Your task to perform on an android device: install app "Roku - Official Remote Control" Image 0: 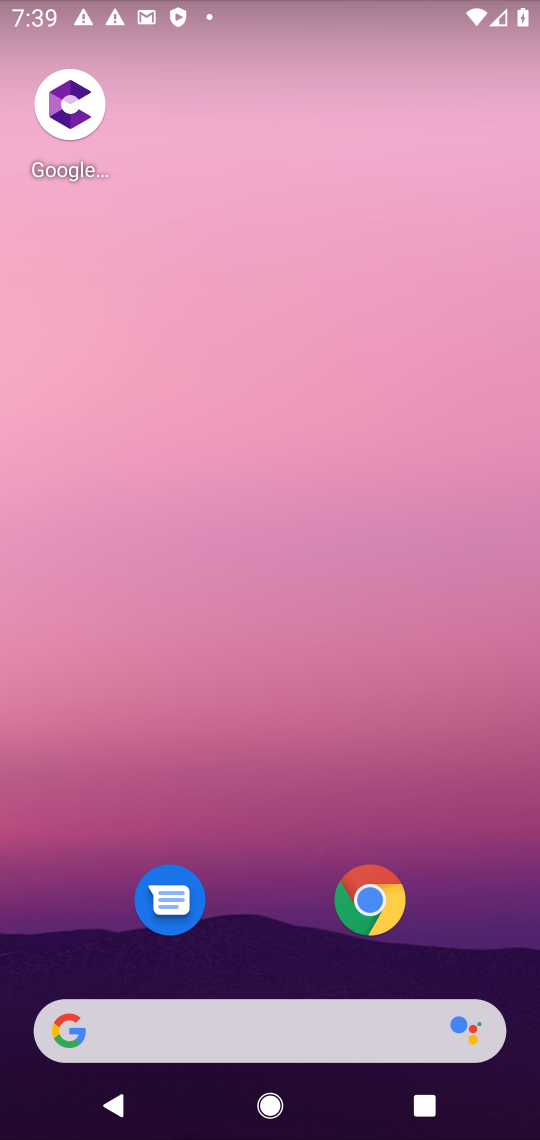
Step 0: drag from (293, 914) to (531, 48)
Your task to perform on an android device: install app "Roku - Official Remote Control" Image 1: 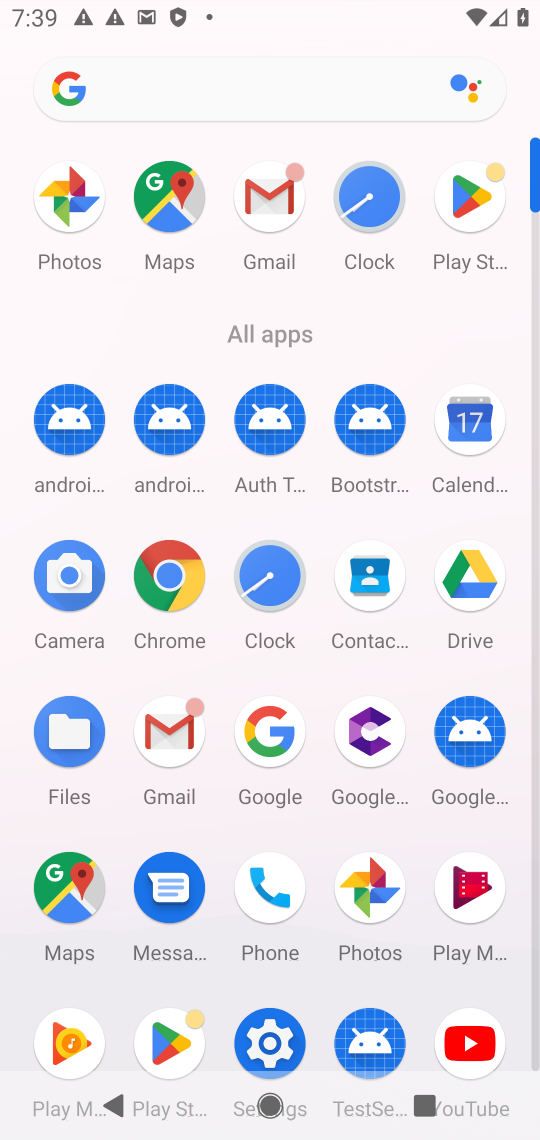
Step 1: click (166, 1032)
Your task to perform on an android device: install app "Roku - Official Remote Control" Image 2: 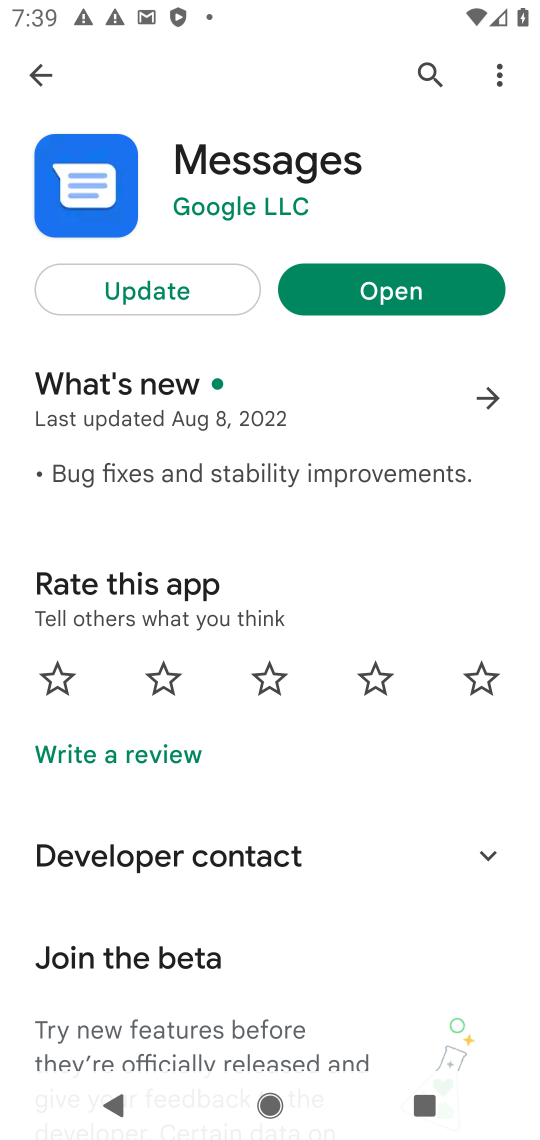
Step 2: click (36, 70)
Your task to perform on an android device: install app "Roku - Official Remote Control" Image 3: 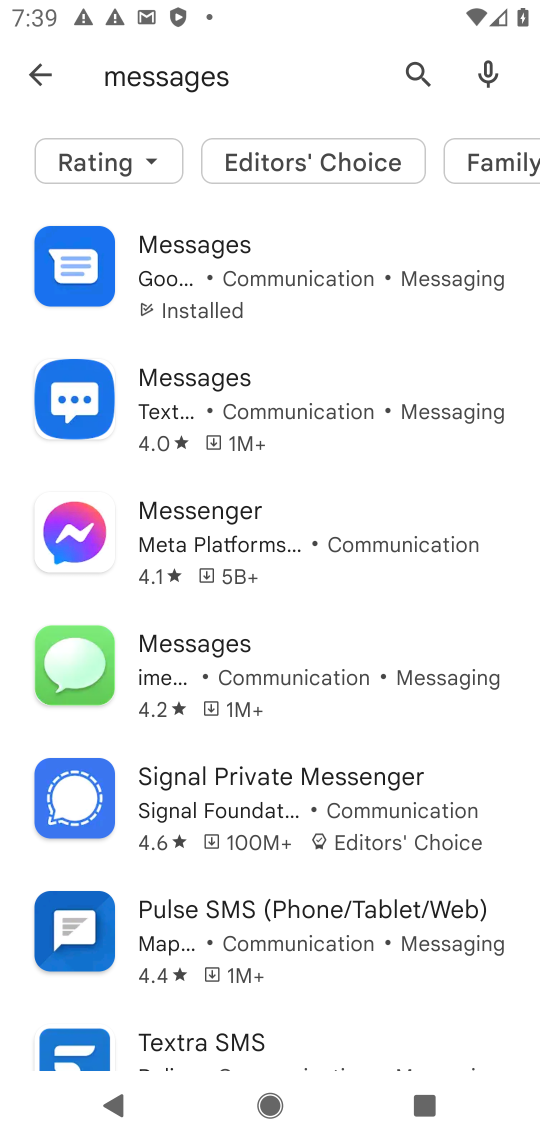
Step 3: click (53, 65)
Your task to perform on an android device: install app "Roku - Official Remote Control" Image 4: 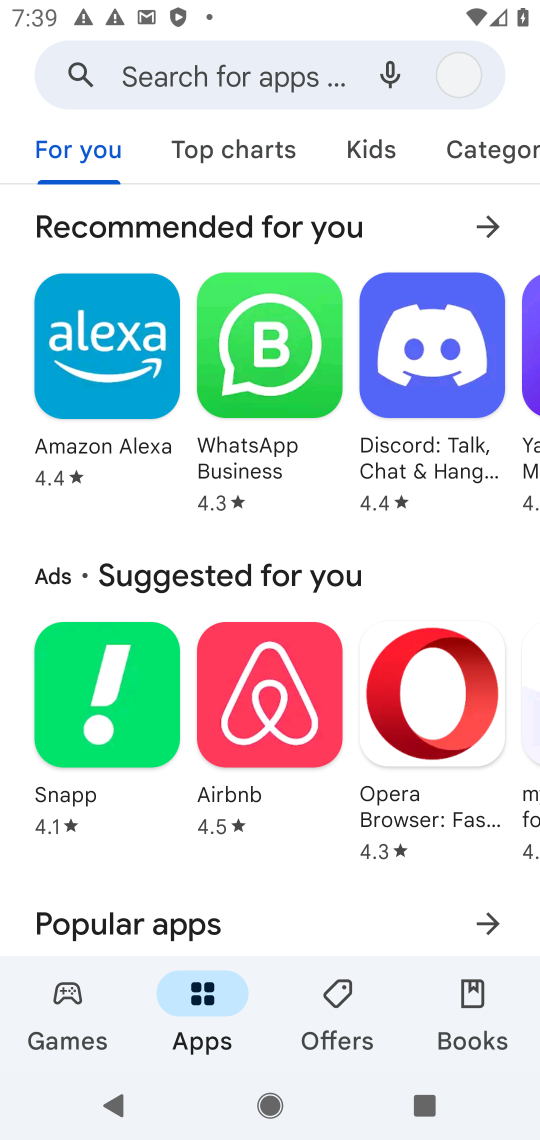
Step 4: click (199, 83)
Your task to perform on an android device: install app "Roku - Official Remote Control" Image 5: 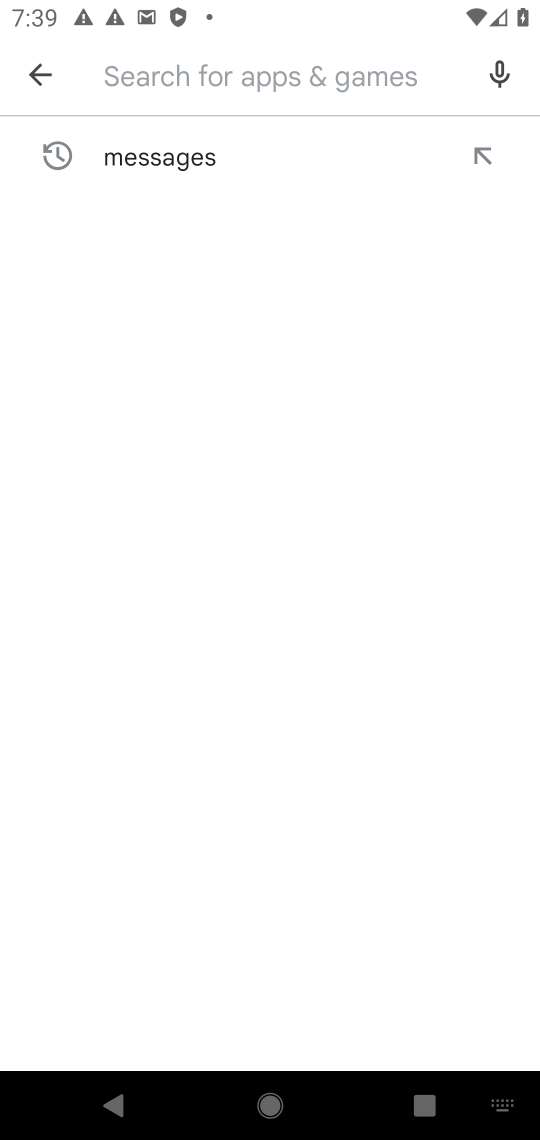
Step 5: type "Roku - Official Remote Control"
Your task to perform on an android device: install app "Roku - Official Remote Control" Image 6: 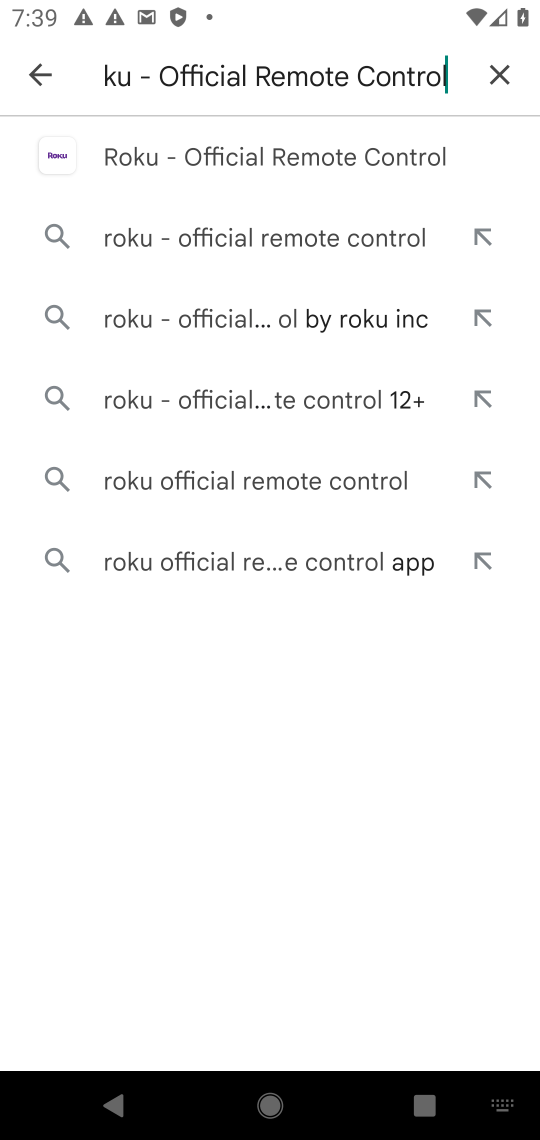
Step 6: click (358, 156)
Your task to perform on an android device: install app "Roku - Official Remote Control" Image 7: 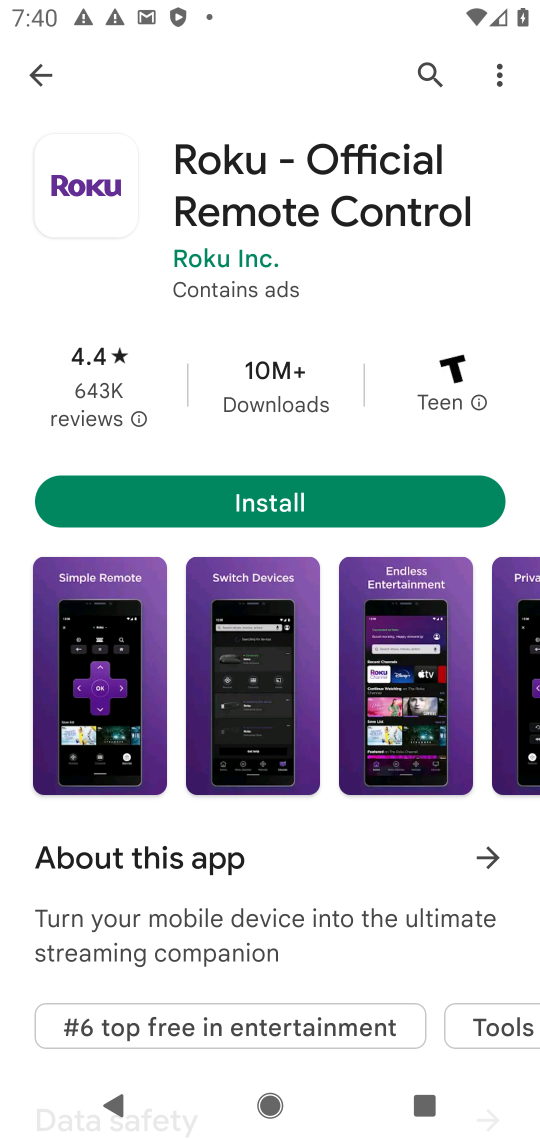
Step 7: click (275, 492)
Your task to perform on an android device: install app "Roku - Official Remote Control" Image 8: 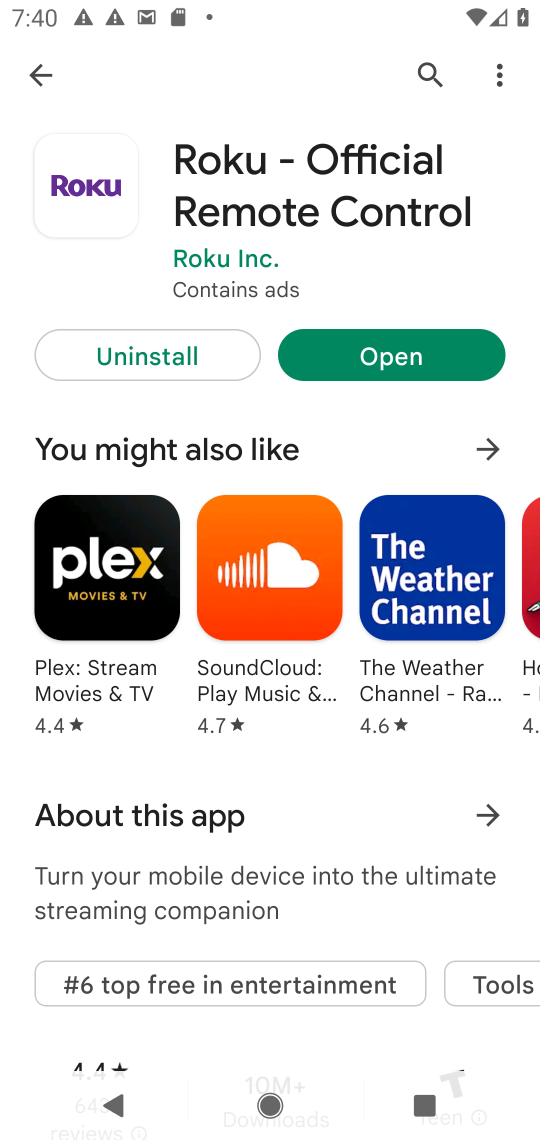
Step 8: click (420, 350)
Your task to perform on an android device: install app "Roku - Official Remote Control" Image 9: 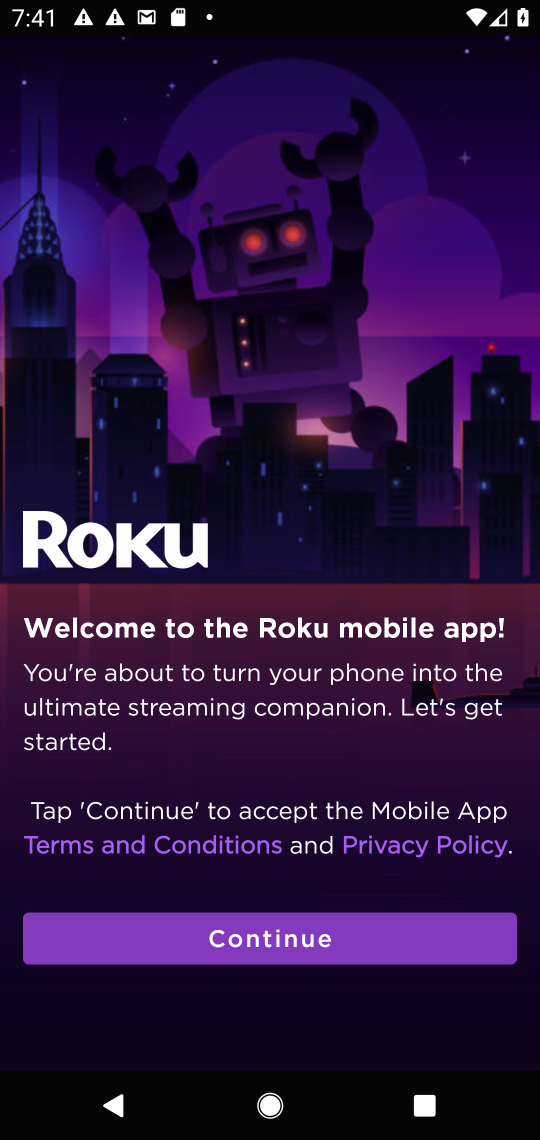
Step 9: task complete